Your task to perform on an android device: Open Android settings Image 0: 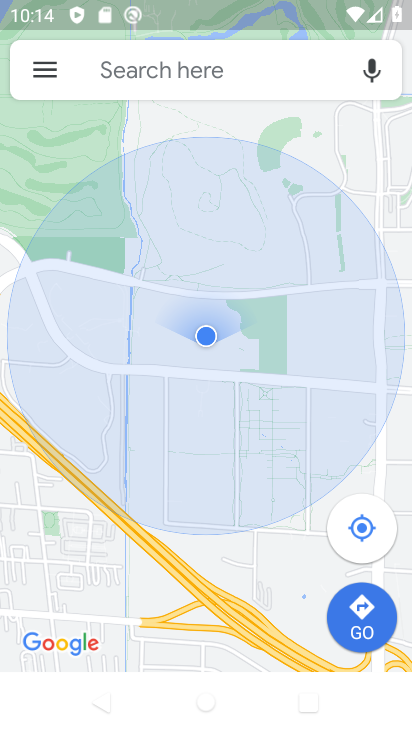
Step 0: press home button
Your task to perform on an android device: Open Android settings Image 1: 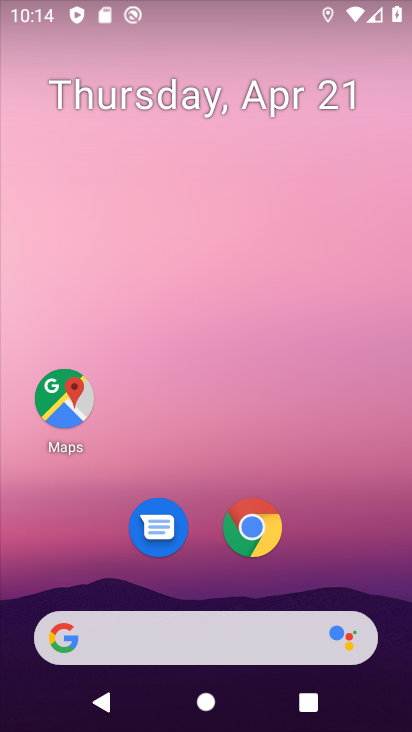
Step 1: drag from (308, 381) to (314, 109)
Your task to perform on an android device: Open Android settings Image 2: 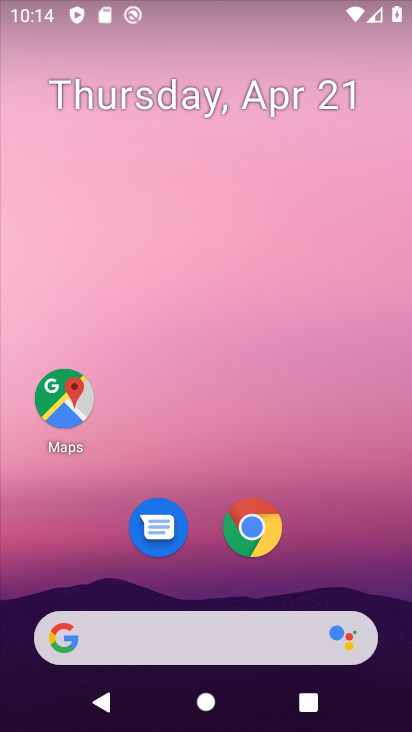
Step 2: drag from (326, 574) to (342, 113)
Your task to perform on an android device: Open Android settings Image 3: 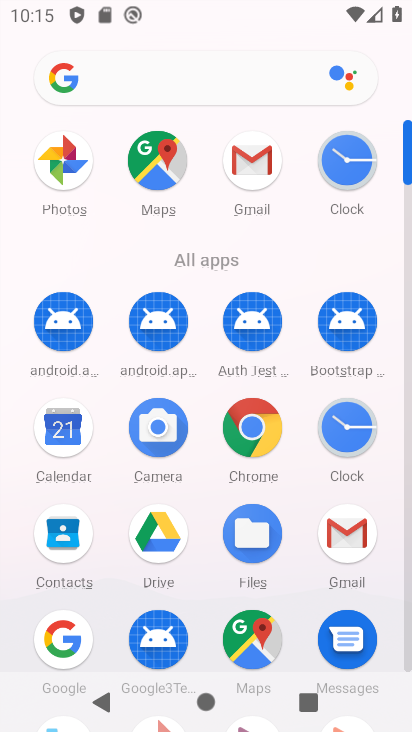
Step 3: drag from (302, 613) to (324, 428)
Your task to perform on an android device: Open Android settings Image 4: 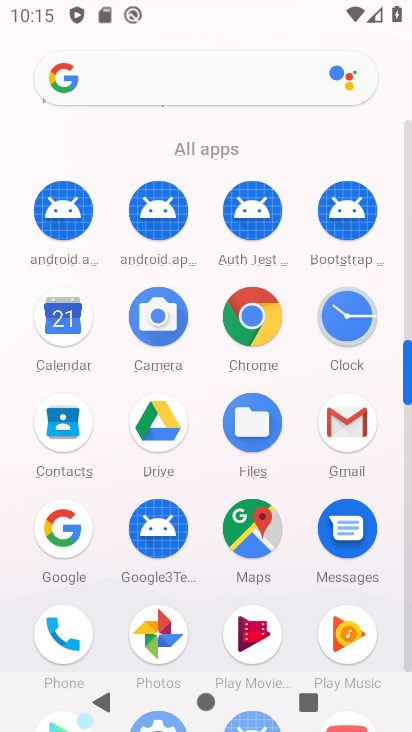
Step 4: drag from (299, 631) to (299, 311)
Your task to perform on an android device: Open Android settings Image 5: 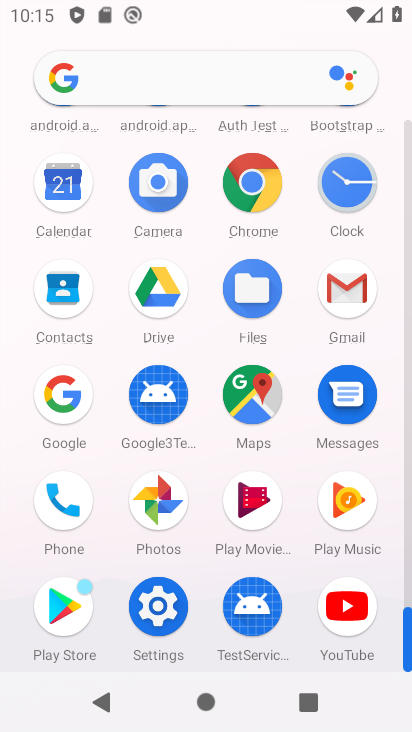
Step 5: click (159, 619)
Your task to perform on an android device: Open Android settings Image 6: 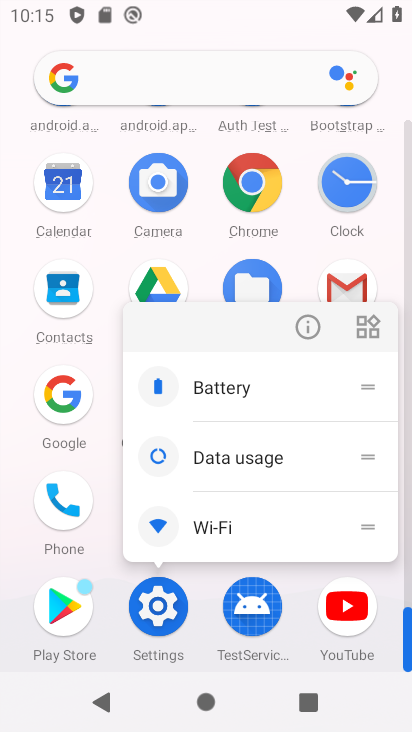
Step 6: click (163, 601)
Your task to perform on an android device: Open Android settings Image 7: 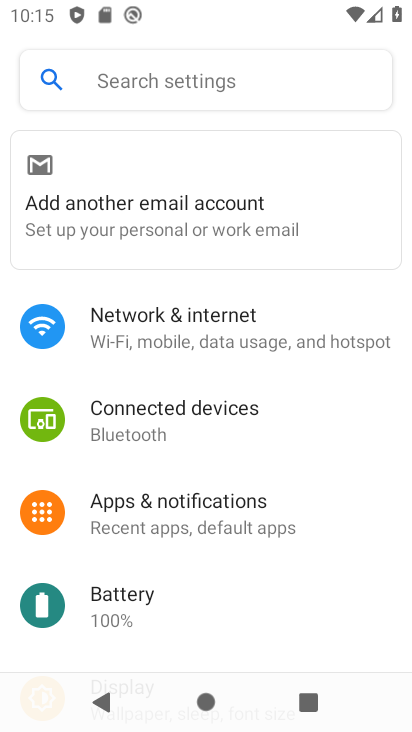
Step 7: drag from (233, 630) to (249, 161)
Your task to perform on an android device: Open Android settings Image 8: 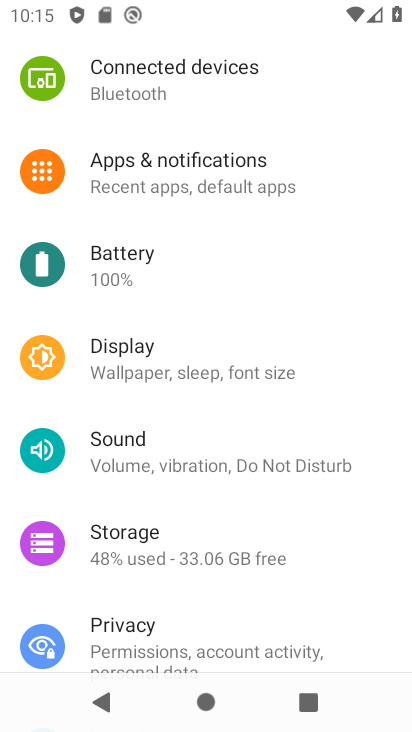
Step 8: drag from (234, 596) to (307, 146)
Your task to perform on an android device: Open Android settings Image 9: 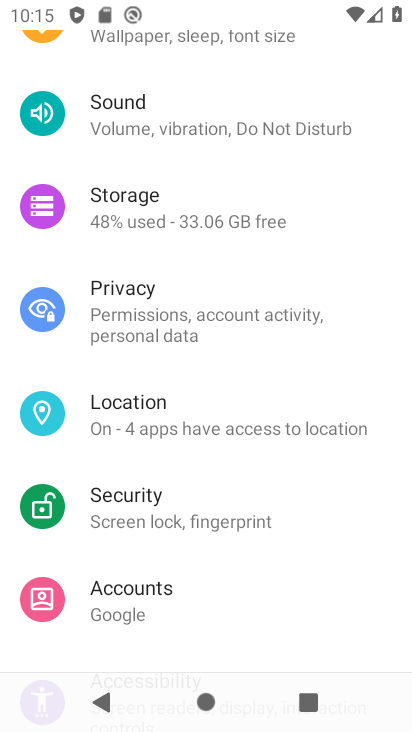
Step 9: drag from (211, 566) to (238, 186)
Your task to perform on an android device: Open Android settings Image 10: 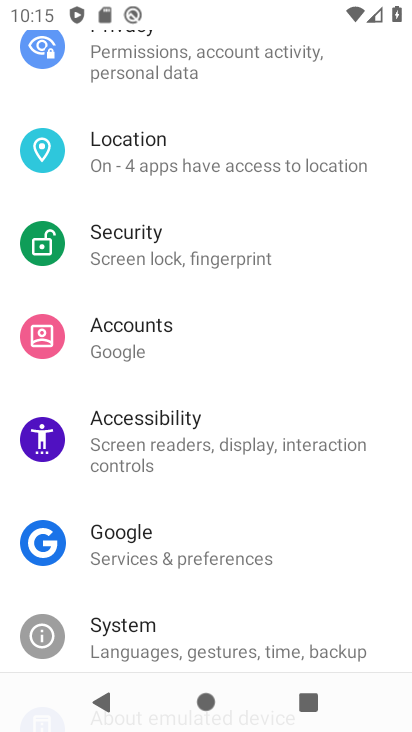
Step 10: drag from (222, 588) to (261, 149)
Your task to perform on an android device: Open Android settings Image 11: 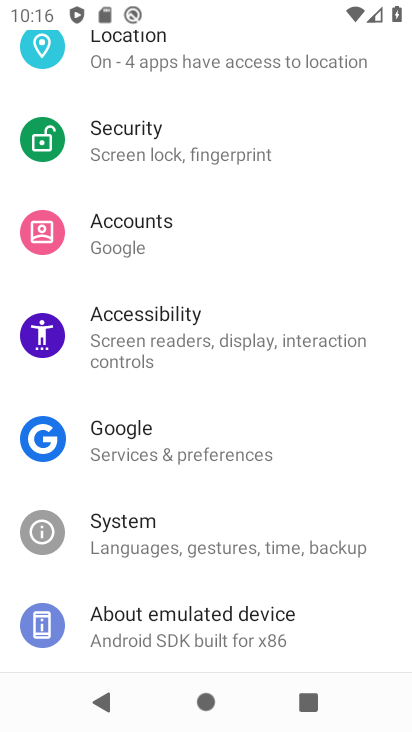
Step 11: click (215, 617)
Your task to perform on an android device: Open Android settings Image 12: 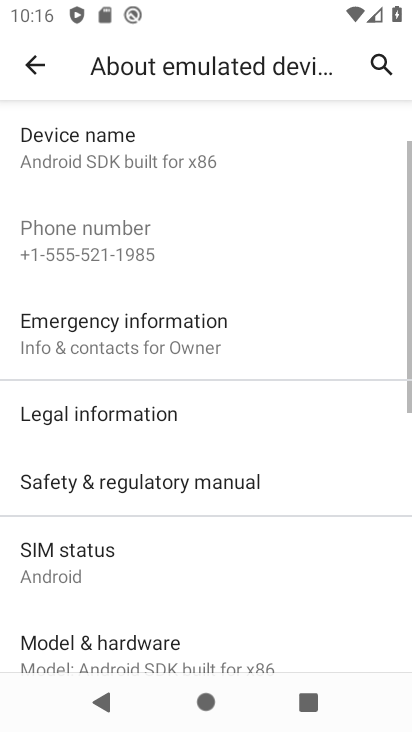
Step 12: drag from (176, 572) to (221, 216)
Your task to perform on an android device: Open Android settings Image 13: 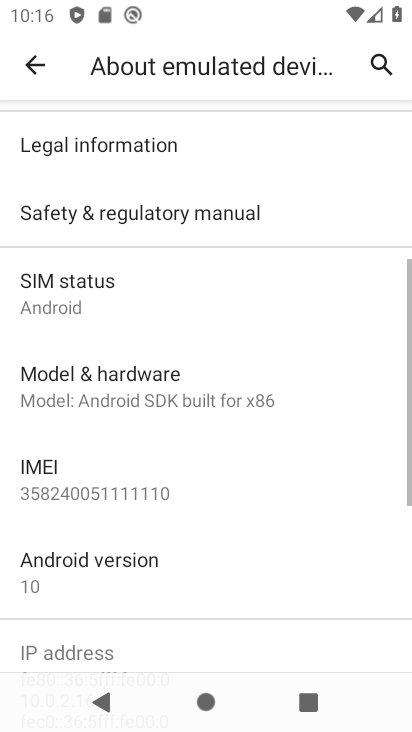
Step 13: click (157, 586)
Your task to perform on an android device: Open Android settings Image 14: 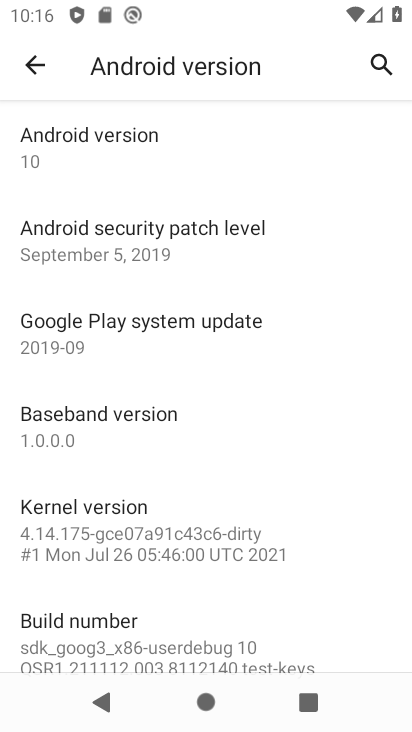
Step 14: task complete